Your task to perform on an android device: allow cookies in the chrome app Image 0: 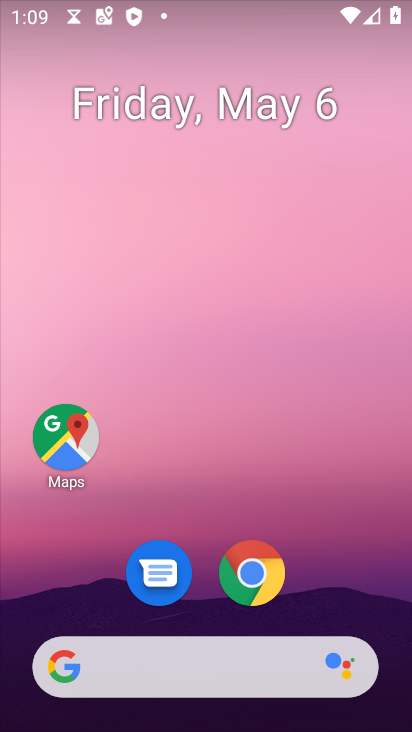
Step 0: drag from (364, 584) to (344, 268)
Your task to perform on an android device: allow cookies in the chrome app Image 1: 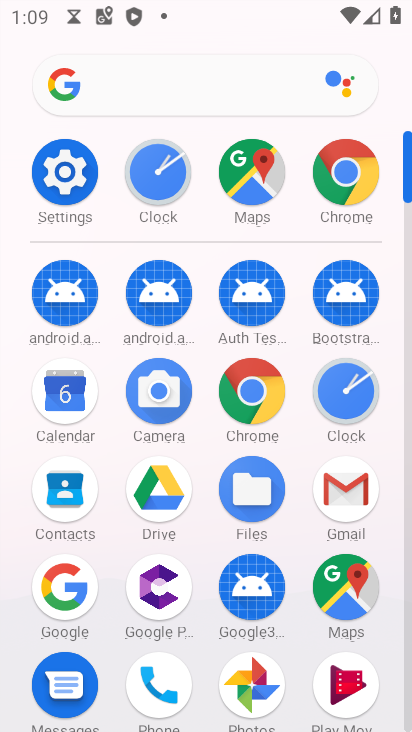
Step 1: click (250, 402)
Your task to perform on an android device: allow cookies in the chrome app Image 2: 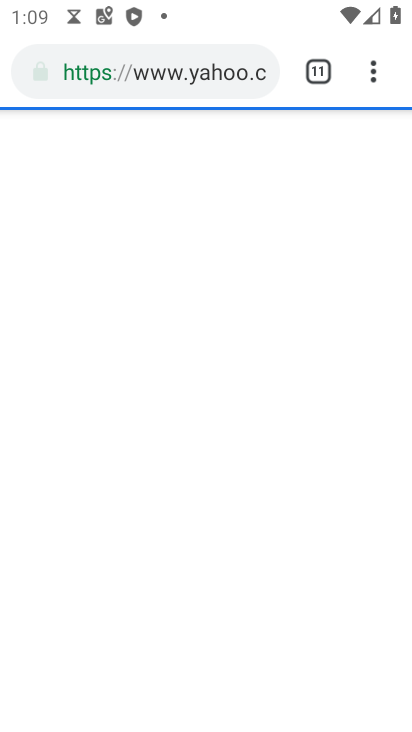
Step 2: click (359, 73)
Your task to perform on an android device: allow cookies in the chrome app Image 3: 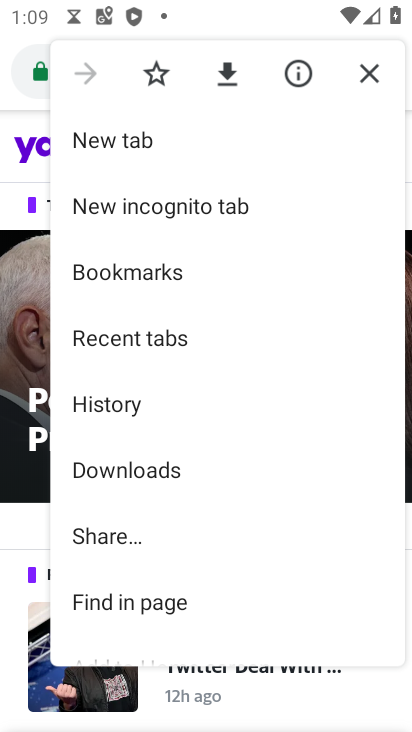
Step 3: drag from (161, 551) to (259, 206)
Your task to perform on an android device: allow cookies in the chrome app Image 4: 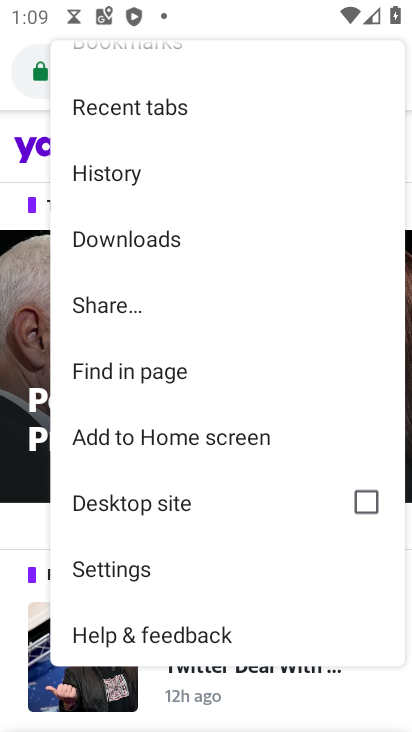
Step 4: click (154, 573)
Your task to perform on an android device: allow cookies in the chrome app Image 5: 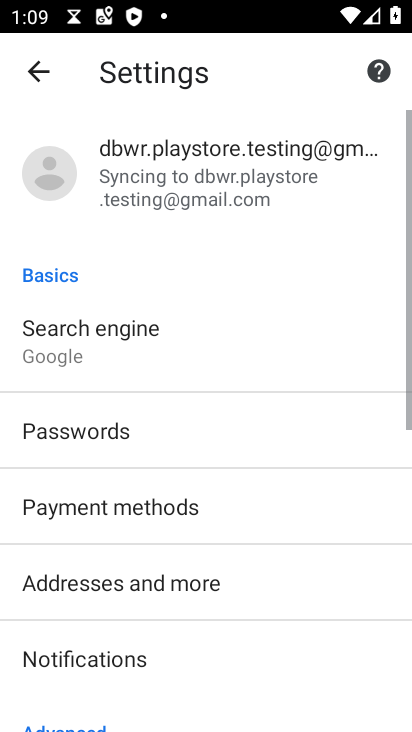
Step 5: drag from (186, 569) to (253, 256)
Your task to perform on an android device: allow cookies in the chrome app Image 6: 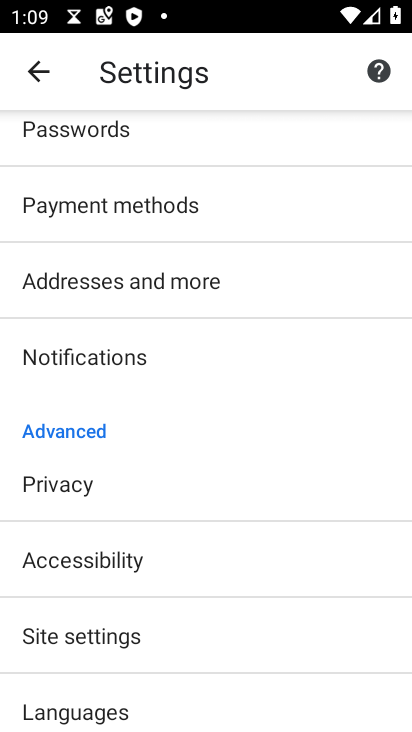
Step 6: click (120, 651)
Your task to perform on an android device: allow cookies in the chrome app Image 7: 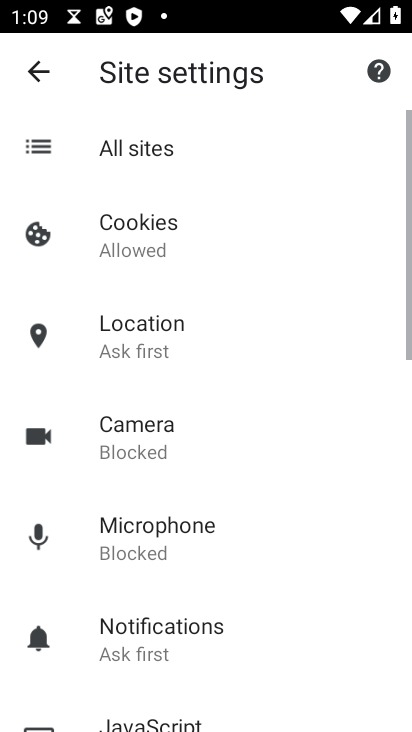
Step 7: click (148, 236)
Your task to perform on an android device: allow cookies in the chrome app Image 8: 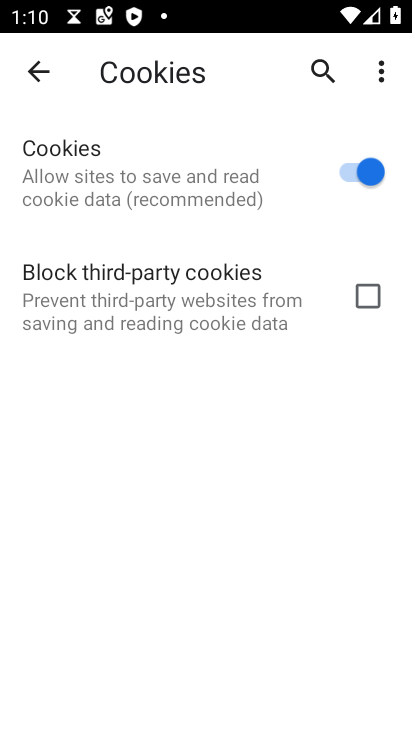
Step 8: task complete